Your task to perform on an android device: turn notification dots off Image 0: 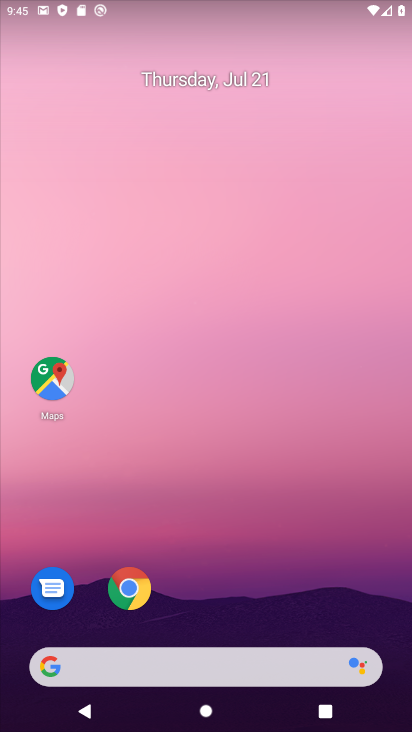
Step 0: press back button
Your task to perform on an android device: turn notification dots off Image 1: 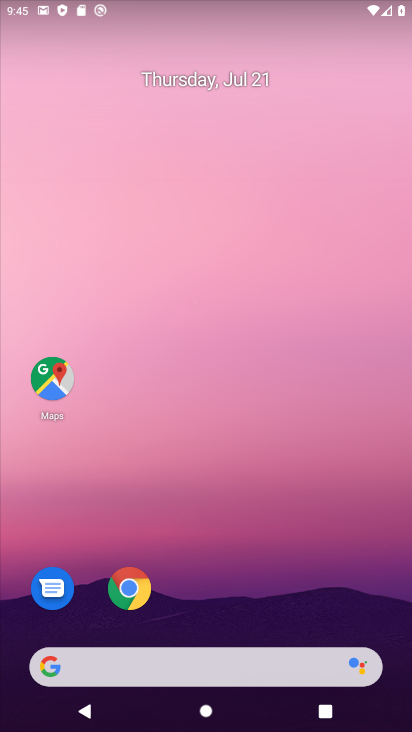
Step 1: click (124, 593)
Your task to perform on an android device: turn notification dots off Image 2: 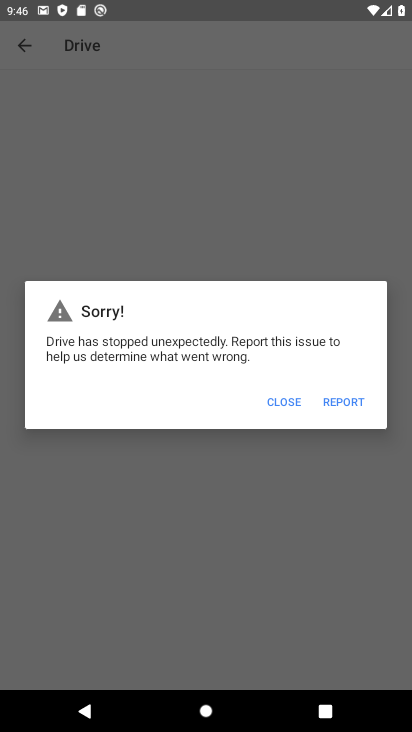
Step 2: click (295, 400)
Your task to perform on an android device: turn notification dots off Image 3: 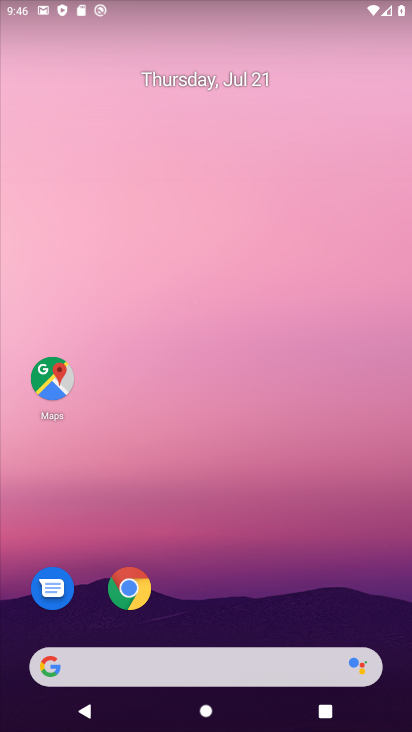
Step 3: drag from (211, 594) to (291, 4)
Your task to perform on an android device: turn notification dots off Image 4: 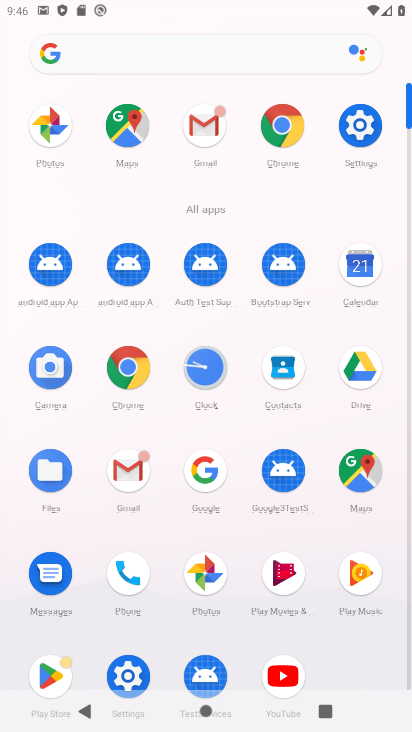
Step 4: click (353, 131)
Your task to perform on an android device: turn notification dots off Image 5: 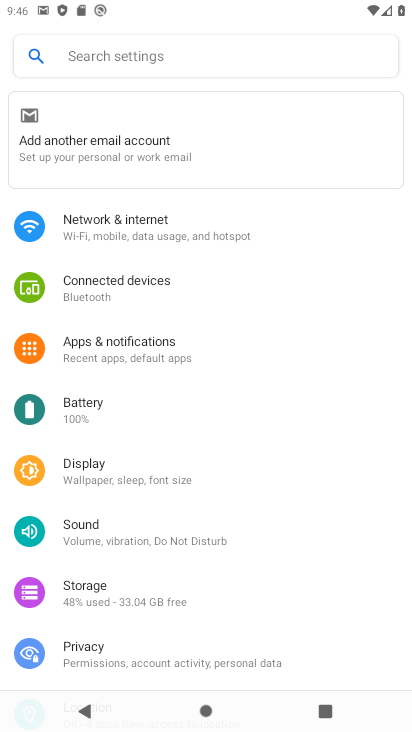
Step 5: click (134, 342)
Your task to perform on an android device: turn notification dots off Image 6: 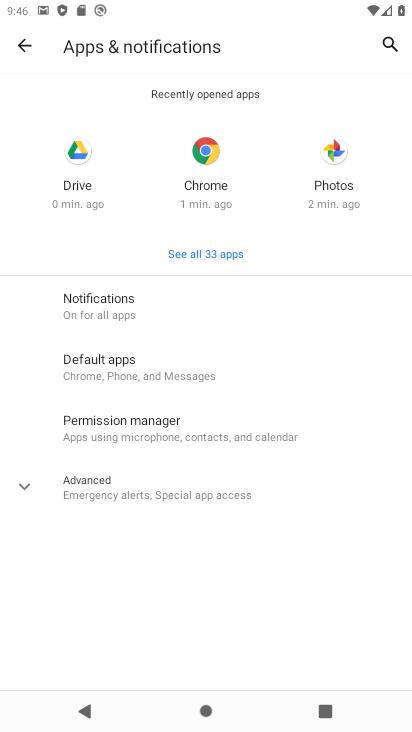
Step 6: click (146, 305)
Your task to perform on an android device: turn notification dots off Image 7: 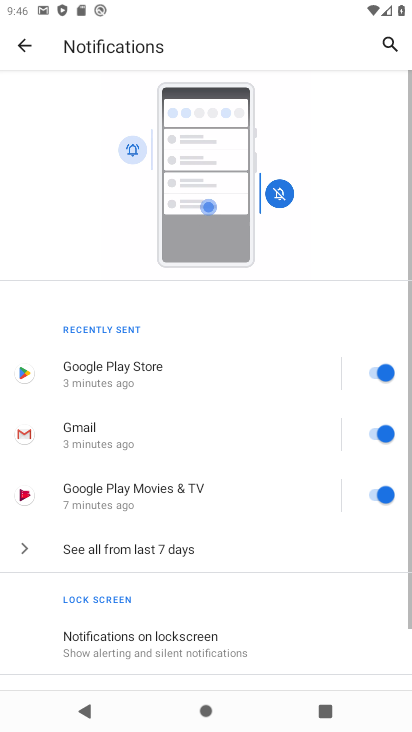
Step 7: drag from (155, 626) to (232, 42)
Your task to perform on an android device: turn notification dots off Image 8: 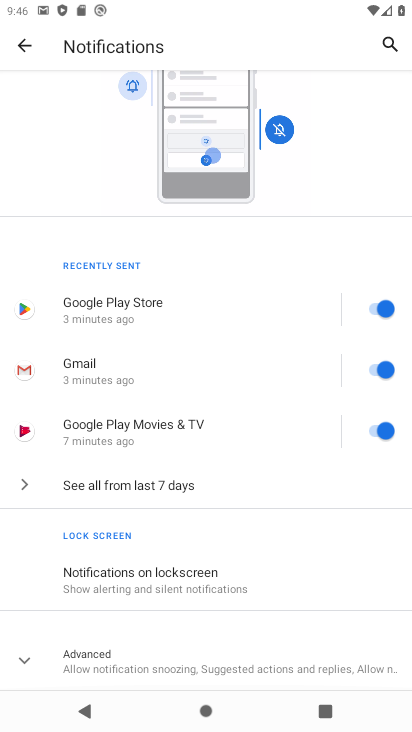
Step 8: click (127, 659)
Your task to perform on an android device: turn notification dots off Image 9: 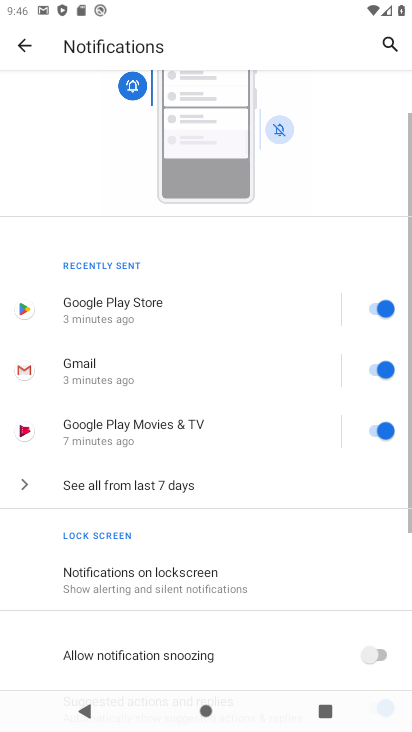
Step 9: drag from (136, 609) to (194, 219)
Your task to perform on an android device: turn notification dots off Image 10: 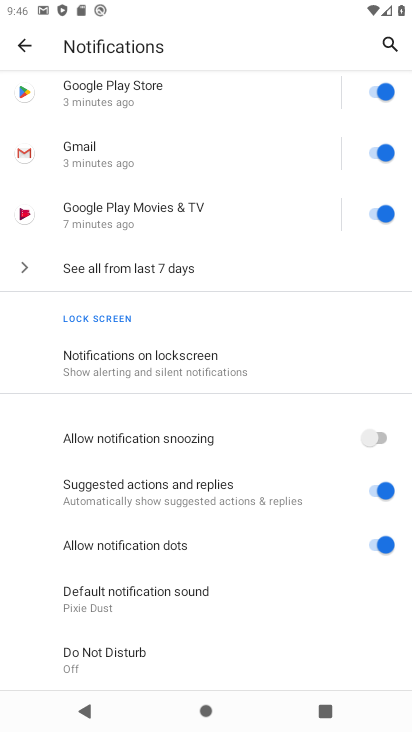
Step 10: click (386, 543)
Your task to perform on an android device: turn notification dots off Image 11: 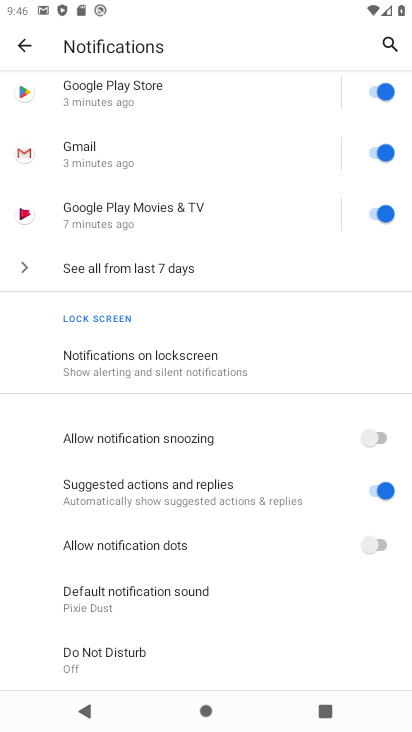
Step 11: task complete